Your task to perform on an android device: Open Youtube and go to "Your channel" Image 0: 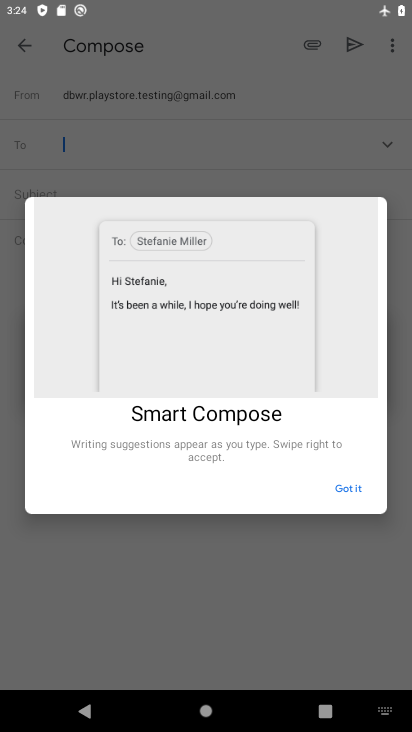
Step 0: press home button
Your task to perform on an android device: Open Youtube and go to "Your channel" Image 1: 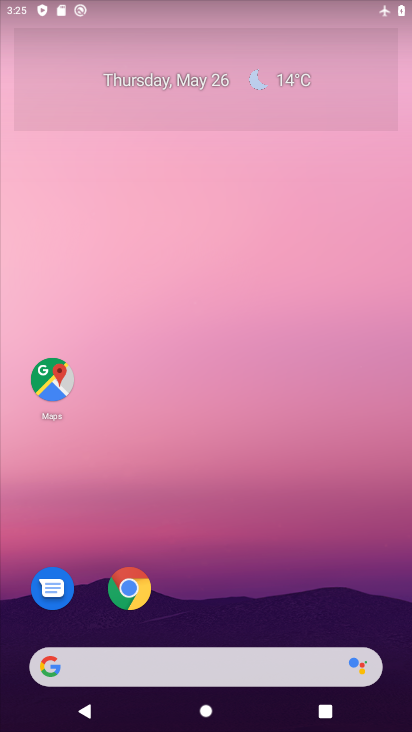
Step 1: click (265, 449)
Your task to perform on an android device: Open Youtube and go to "Your channel" Image 2: 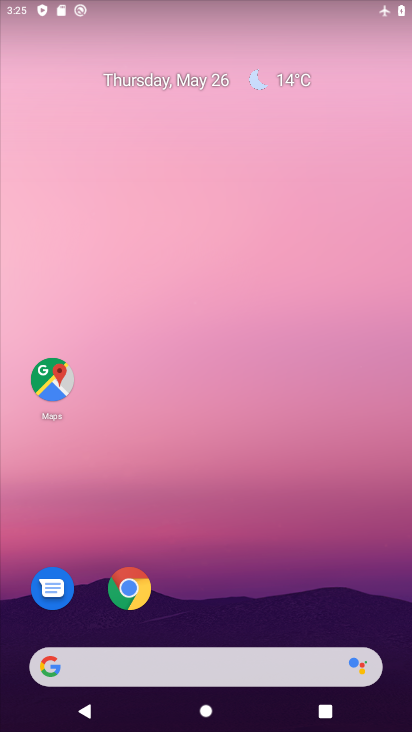
Step 2: drag from (250, 600) to (295, 221)
Your task to perform on an android device: Open Youtube and go to "Your channel" Image 3: 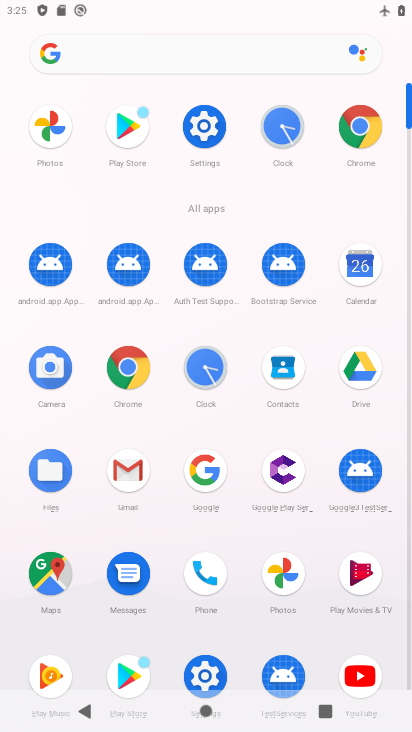
Step 3: click (211, 129)
Your task to perform on an android device: Open Youtube and go to "Your channel" Image 4: 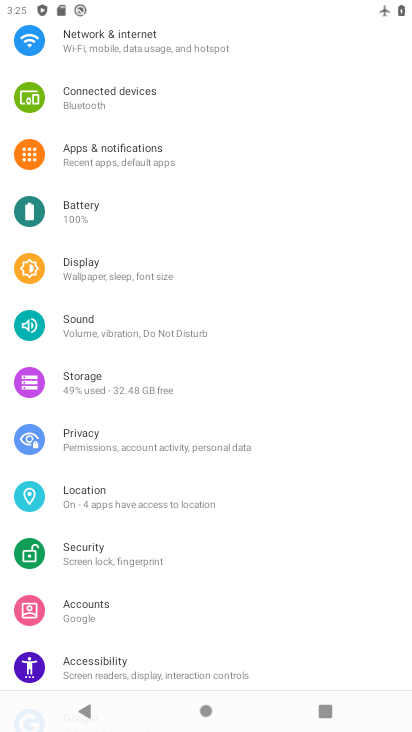
Step 4: drag from (226, 53) to (231, 389)
Your task to perform on an android device: Open Youtube and go to "Your channel" Image 5: 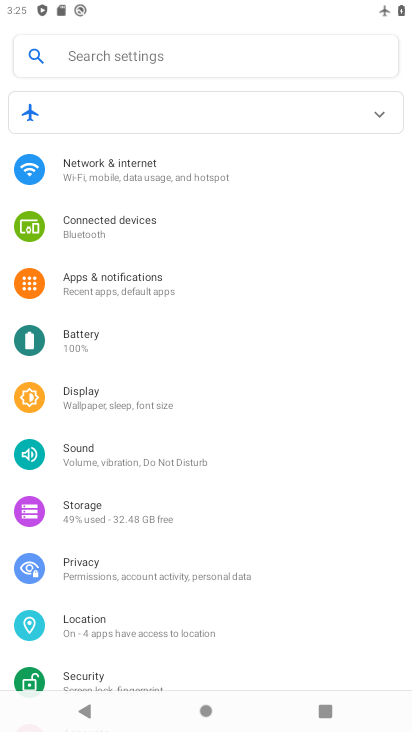
Step 5: click (376, 114)
Your task to perform on an android device: Open Youtube and go to "Your channel" Image 6: 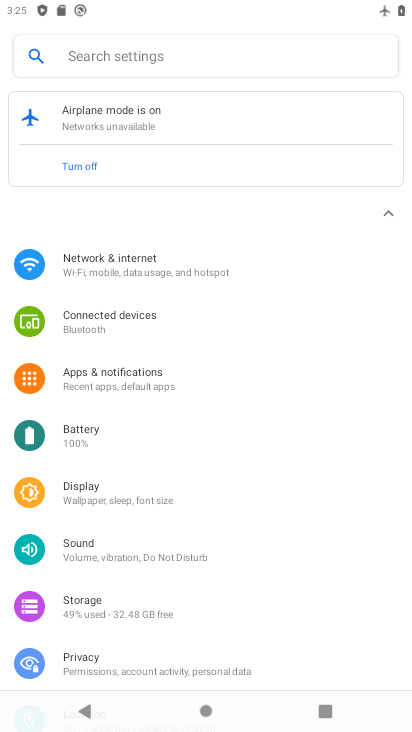
Step 6: click (187, 174)
Your task to perform on an android device: Open Youtube and go to "Your channel" Image 7: 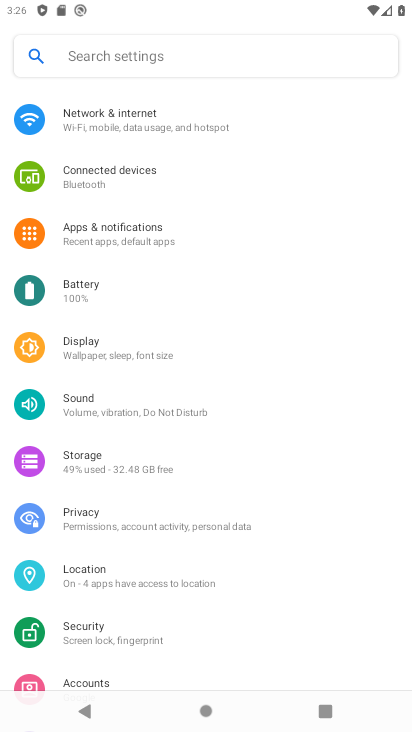
Step 7: press home button
Your task to perform on an android device: Open Youtube and go to "Your channel" Image 8: 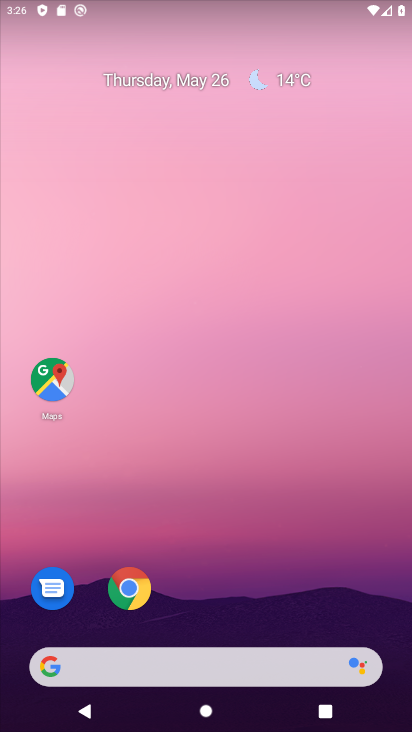
Step 8: drag from (257, 586) to (325, 52)
Your task to perform on an android device: Open Youtube and go to "Your channel" Image 9: 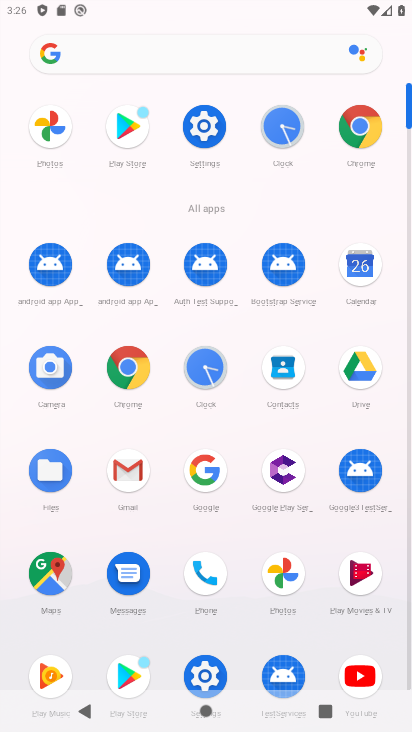
Step 9: click (362, 675)
Your task to perform on an android device: Open Youtube and go to "Your channel" Image 10: 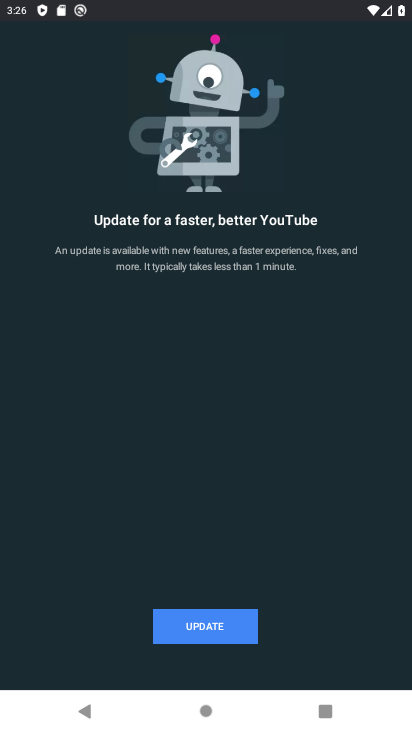
Step 10: click (221, 614)
Your task to perform on an android device: Open Youtube and go to "Your channel" Image 11: 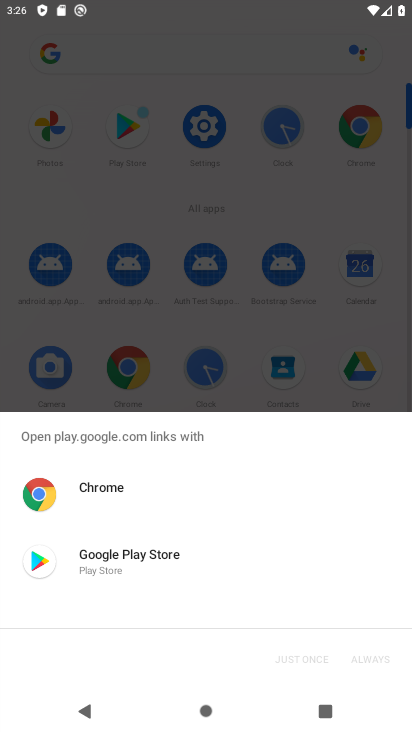
Step 11: click (123, 544)
Your task to perform on an android device: Open Youtube and go to "Your channel" Image 12: 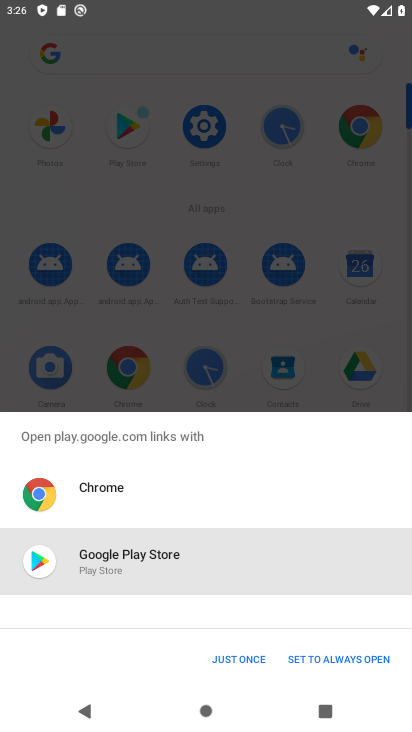
Step 12: click (218, 660)
Your task to perform on an android device: Open Youtube and go to "Your channel" Image 13: 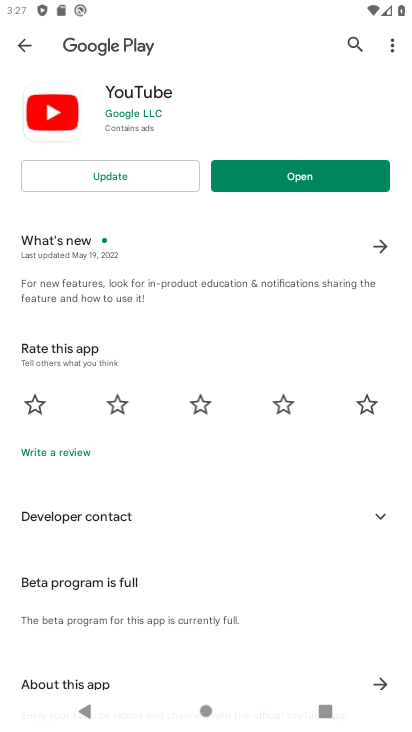
Step 13: click (109, 190)
Your task to perform on an android device: Open Youtube and go to "Your channel" Image 14: 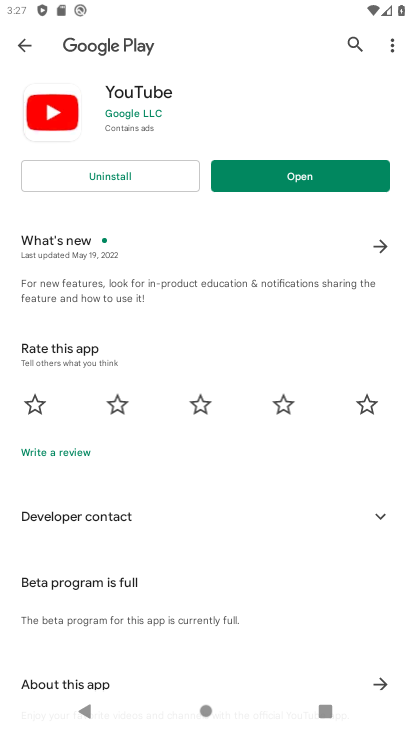
Step 14: click (288, 176)
Your task to perform on an android device: Open Youtube and go to "Your channel" Image 15: 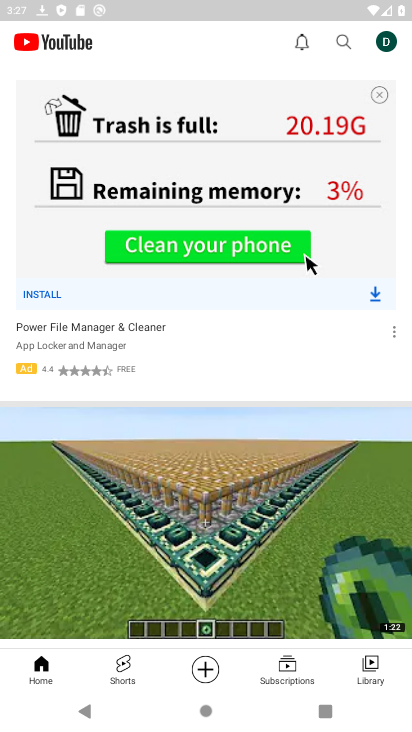
Step 15: click (379, 52)
Your task to perform on an android device: Open Youtube and go to "Your channel" Image 16: 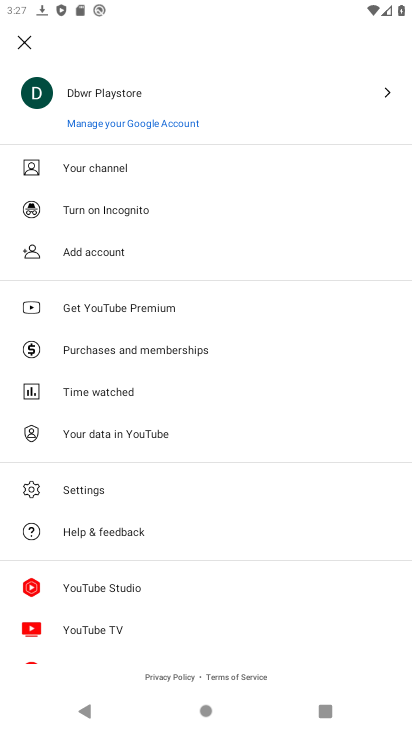
Step 16: click (154, 171)
Your task to perform on an android device: Open Youtube and go to "Your channel" Image 17: 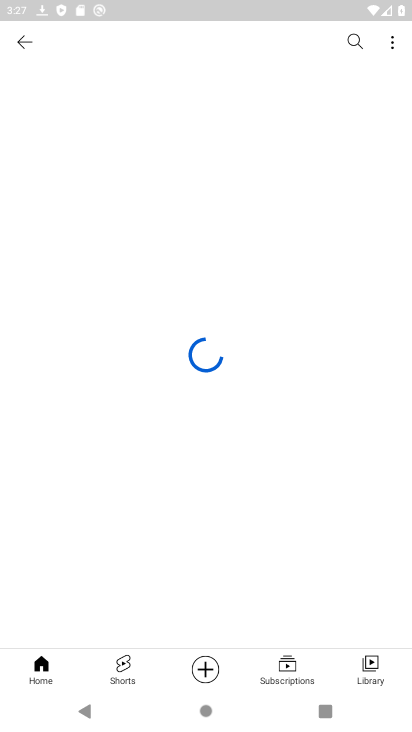
Step 17: task complete